Your task to perform on an android device: Open the map Image 0: 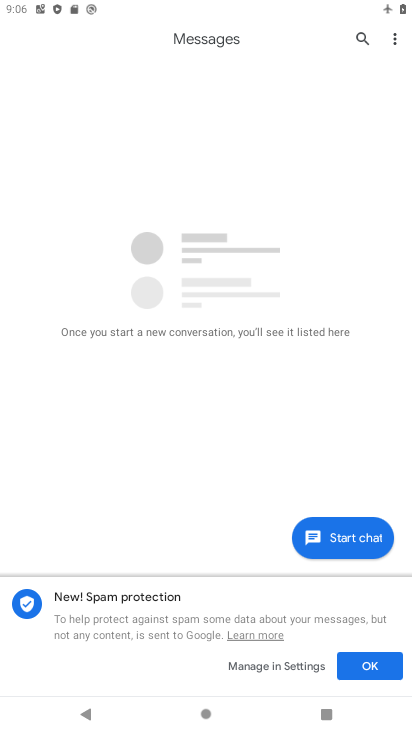
Step 0: press home button
Your task to perform on an android device: Open the map Image 1: 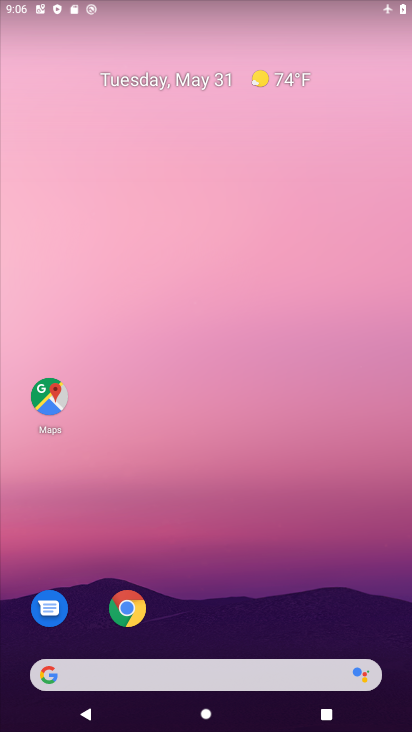
Step 1: click (64, 404)
Your task to perform on an android device: Open the map Image 2: 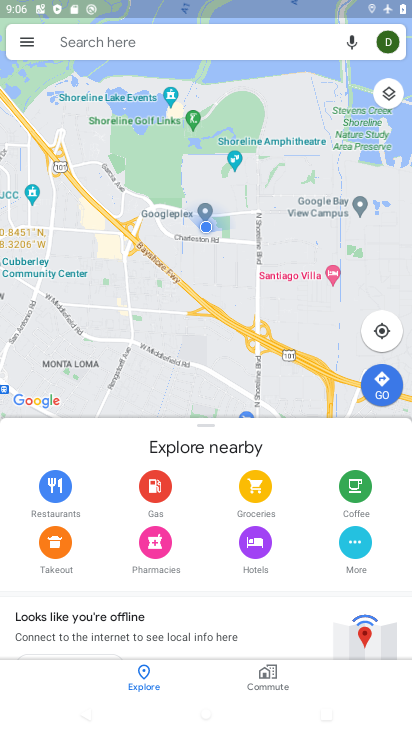
Step 2: task complete